Your task to perform on an android device: choose inbox layout in the gmail app Image 0: 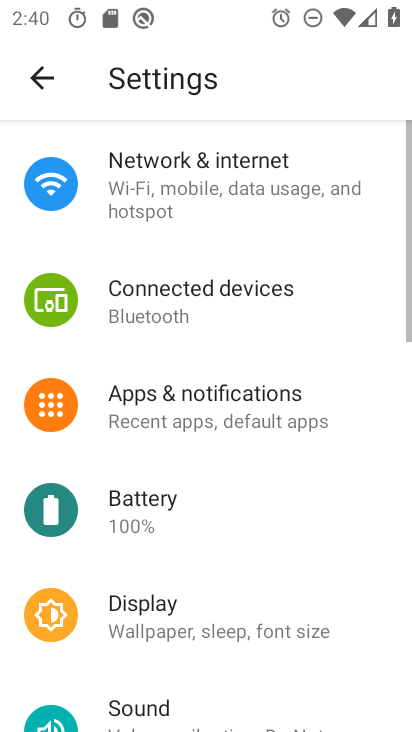
Step 0: press home button
Your task to perform on an android device: choose inbox layout in the gmail app Image 1: 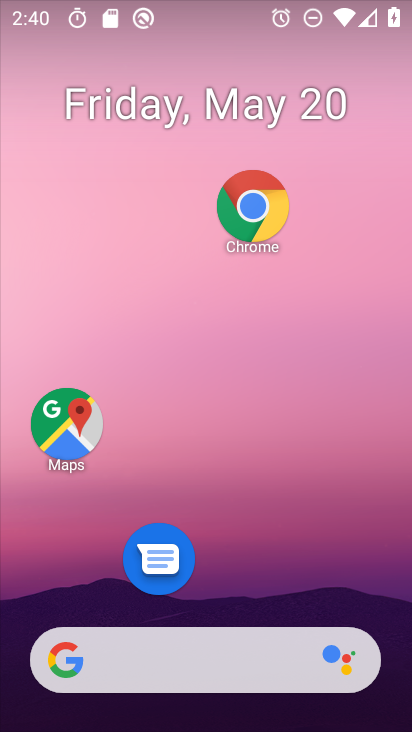
Step 1: drag from (240, 655) to (149, 57)
Your task to perform on an android device: choose inbox layout in the gmail app Image 2: 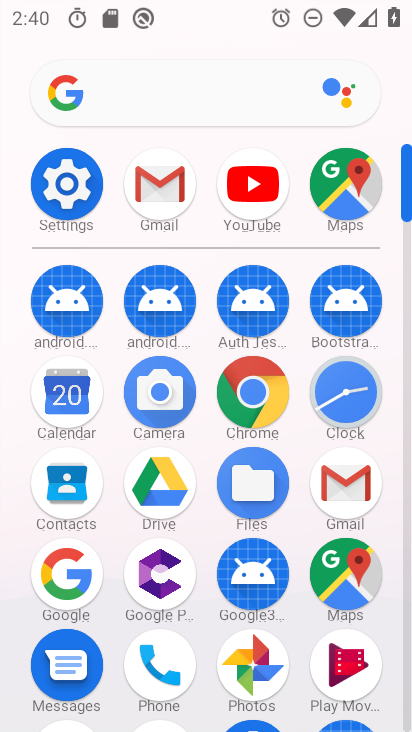
Step 2: click (353, 499)
Your task to perform on an android device: choose inbox layout in the gmail app Image 3: 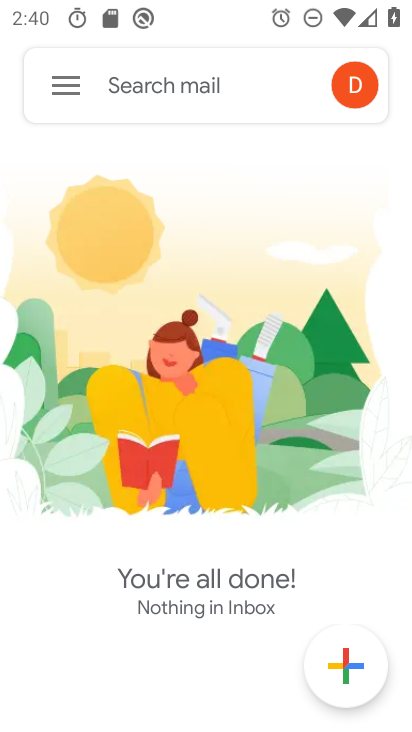
Step 3: click (44, 86)
Your task to perform on an android device: choose inbox layout in the gmail app Image 4: 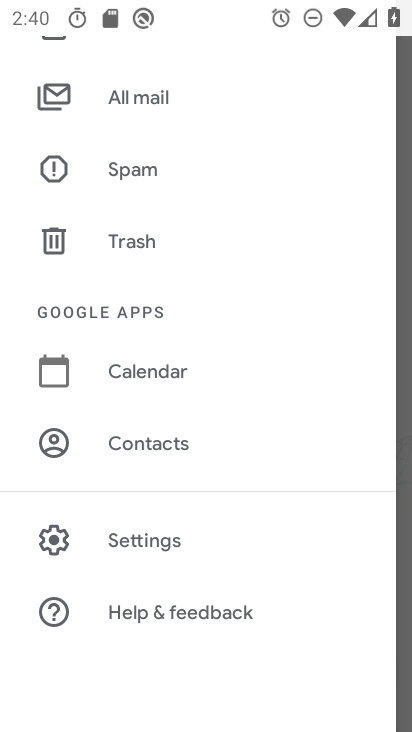
Step 4: click (144, 537)
Your task to perform on an android device: choose inbox layout in the gmail app Image 5: 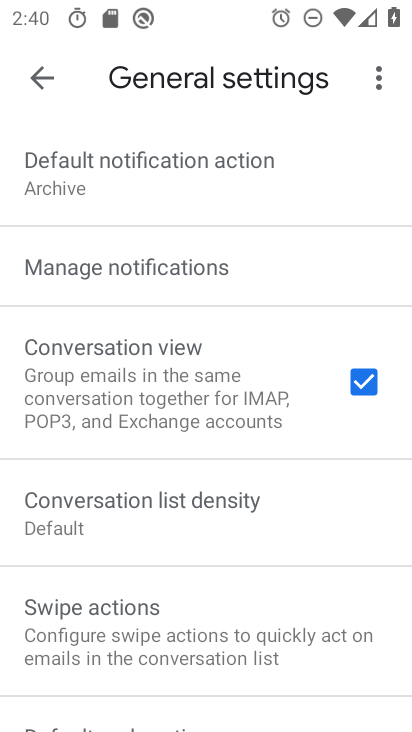
Step 5: click (24, 61)
Your task to perform on an android device: choose inbox layout in the gmail app Image 6: 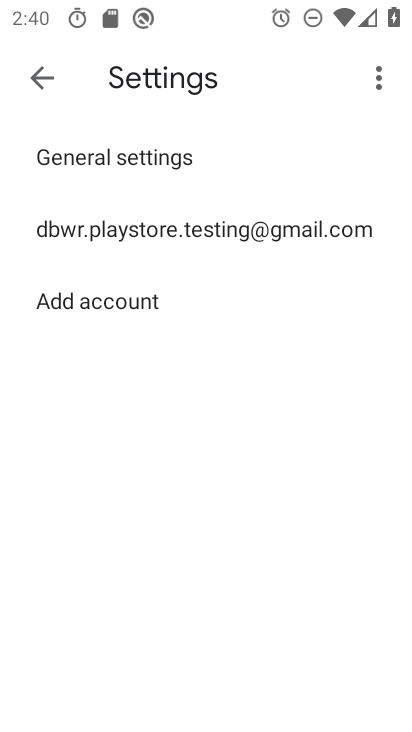
Step 6: click (117, 248)
Your task to perform on an android device: choose inbox layout in the gmail app Image 7: 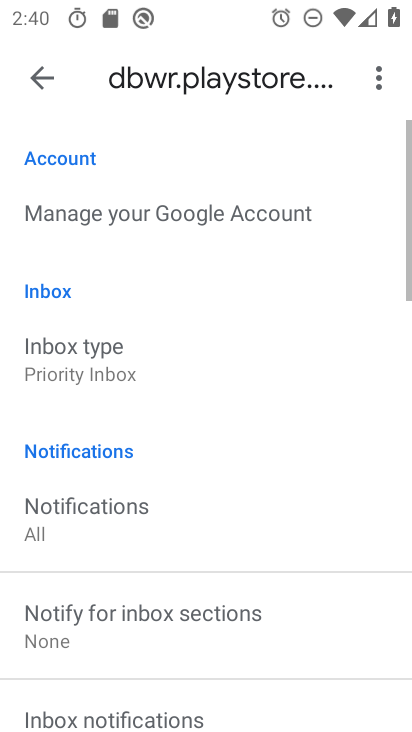
Step 7: click (63, 351)
Your task to perform on an android device: choose inbox layout in the gmail app Image 8: 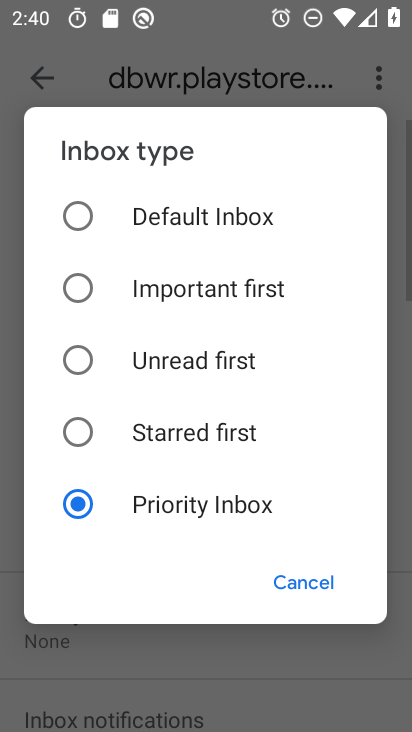
Step 8: click (91, 230)
Your task to perform on an android device: choose inbox layout in the gmail app Image 9: 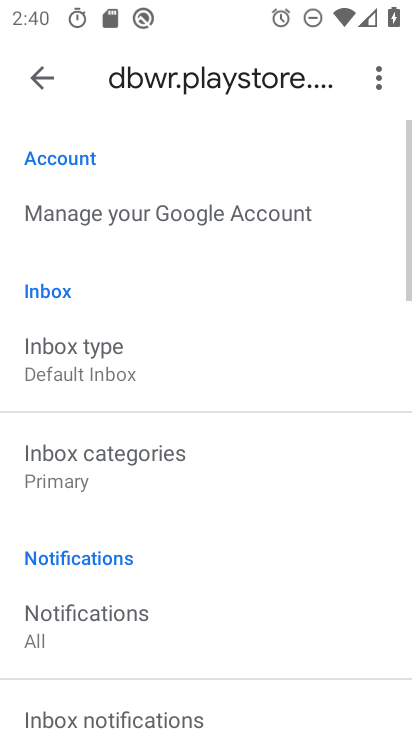
Step 9: click (97, 338)
Your task to perform on an android device: choose inbox layout in the gmail app Image 10: 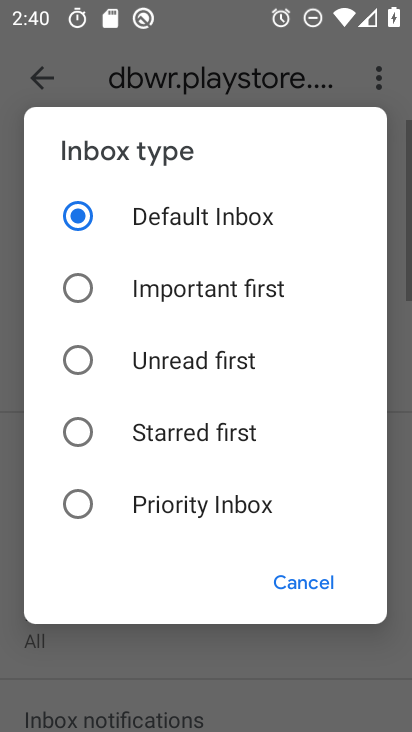
Step 10: click (150, 509)
Your task to perform on an android device: choose inbox layout in the gmail app Image 11: 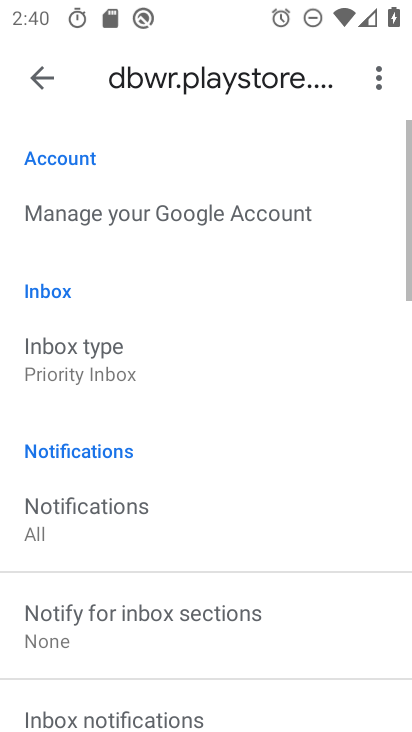
Step 11: click (32, 75)
Your task to perform on an android device: choose inbox layout in the gmail app Image 12: 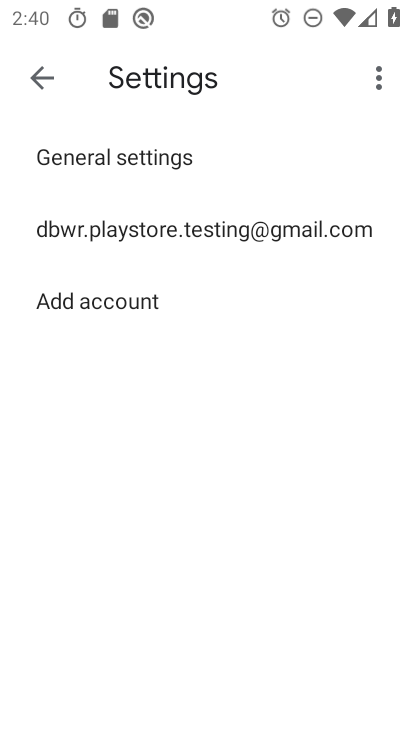
Step 12: click (32, 75)
Your task to perform on an android device: choose inbox layout in the gmail app Image 13: 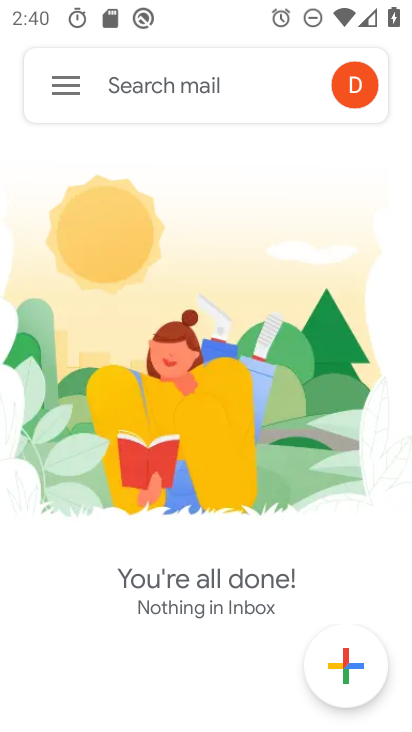
Step 13: task complete